Your task to perform on an android device: Go to Yahoo.com Image 0: 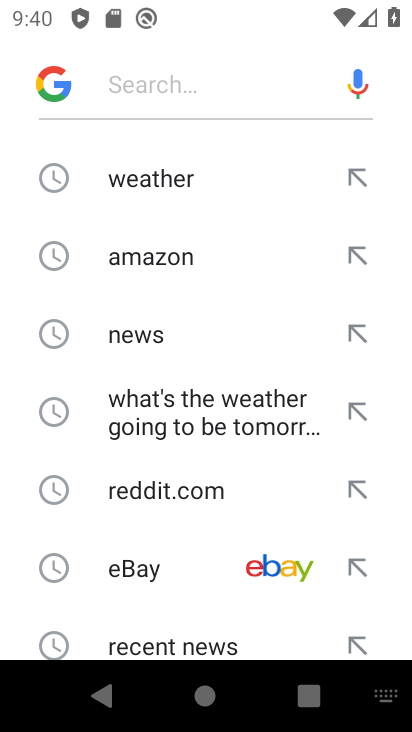
Step 0: press home button
Your task to perform on an android device: Go to Yahoo.com Image 1: 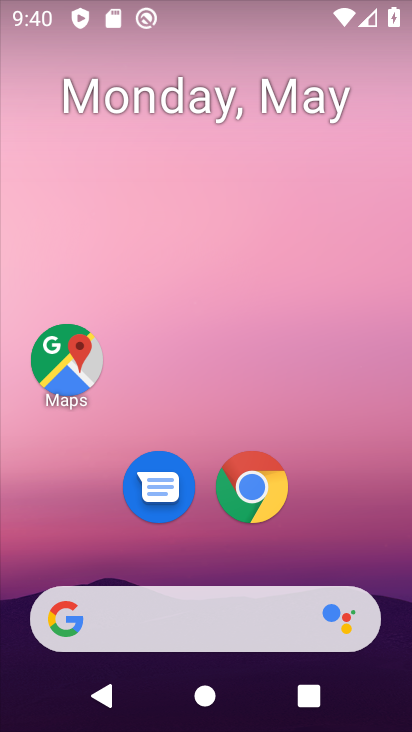
Step 1: click (258, 486)
Your task to perform on an android device: Go to Yahoo.com Image 2: 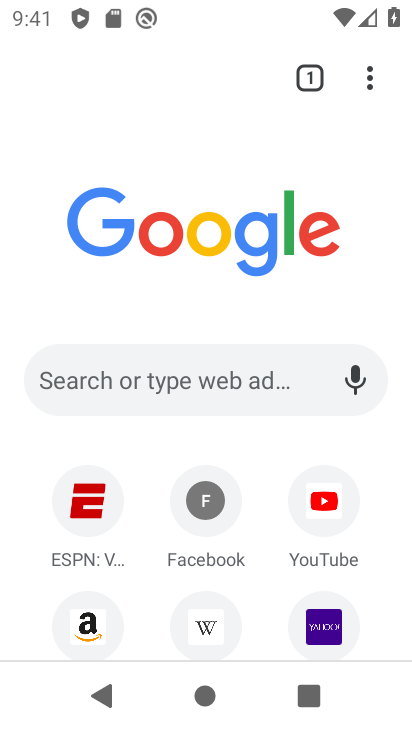
Step 2: click (196, 376)
Your task to perform on an android device: Go to Yahoo.com Image 3: 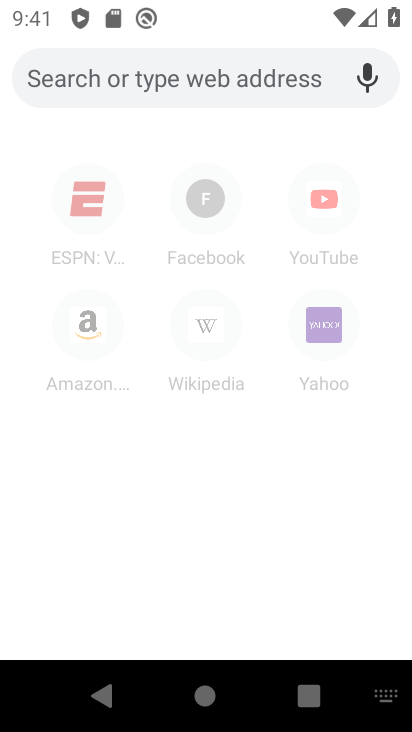
Step 3: type "yahoo.com"
Your task to perform on an android device: Go to Yahoo.com Image 4: 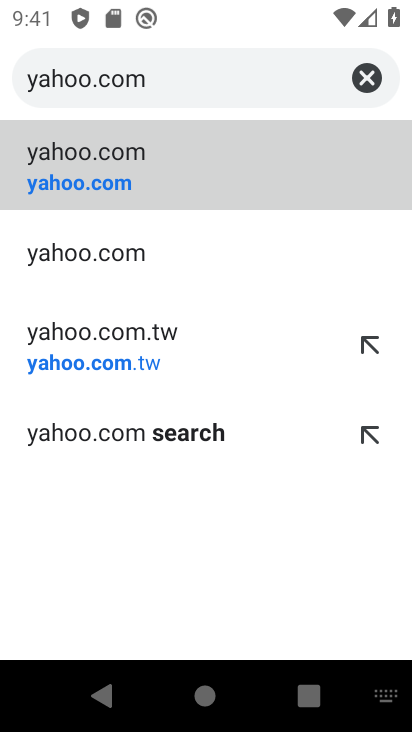
Step 4: click (90, 148)
Your task to perform on an android device: Go to Yahoo.com Image 5: 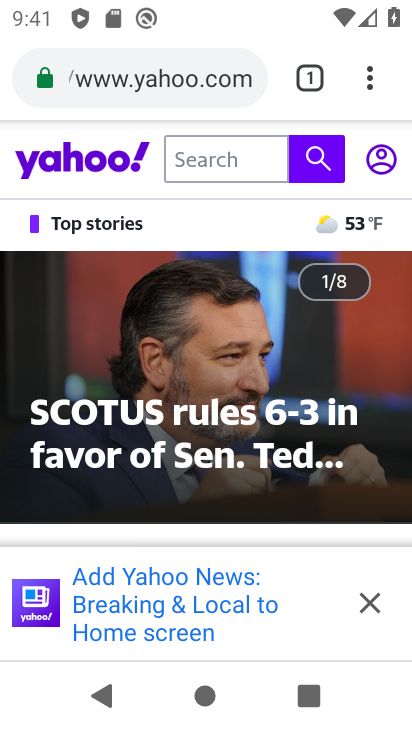
Step 5: task complete